Your task to perform on an android device: Open CNN.com Image 0: 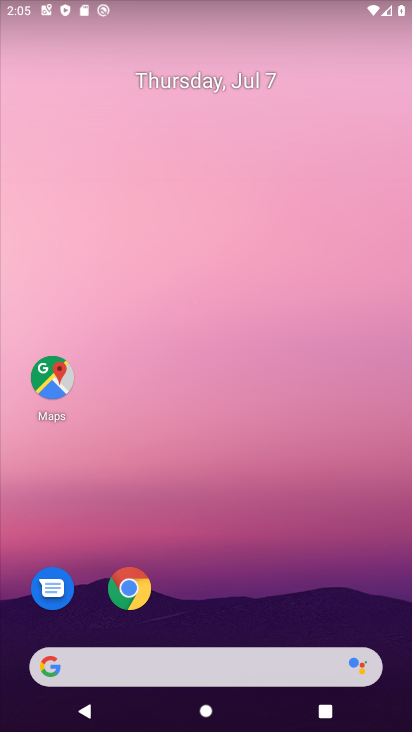
Step 0: click (61, 14)
Your task to perform on an android device: Open CNN.com Image 1: 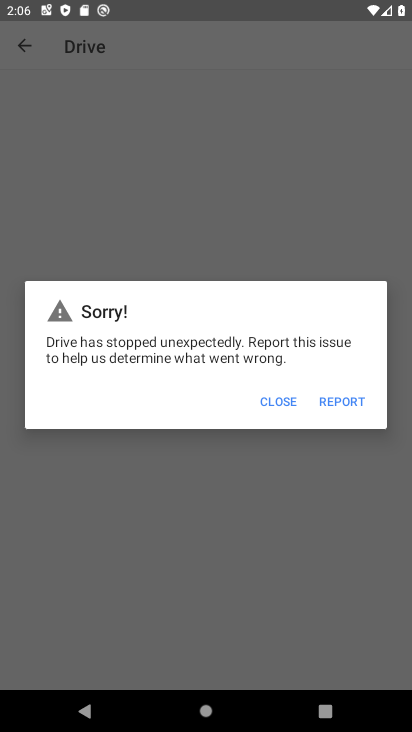
Step 1: task complete